Your task to perform on an android device: move an email to a new category in the gmail app Image 0: 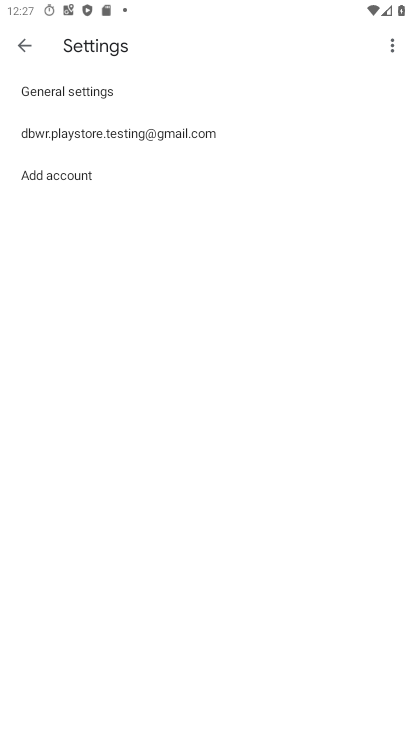
Step 0: press home button
Your task to perform on an android device: move an email to a new category in the gmail app Image 1: 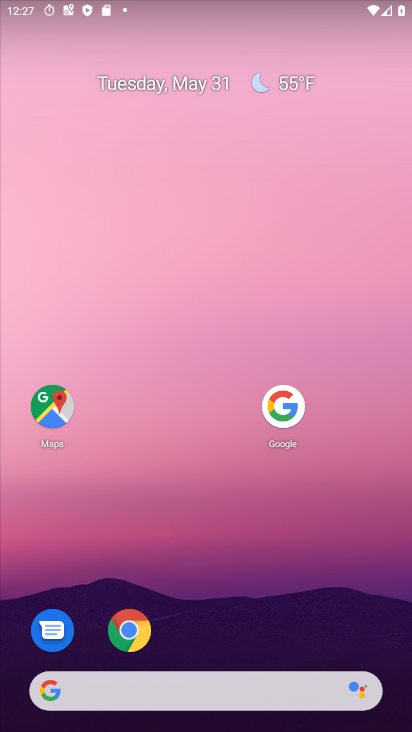
Step 1: drag from (180, 672) to (311, 143)
Your task to perform on an android device: move an email to a new category in the gmail app Image 2: 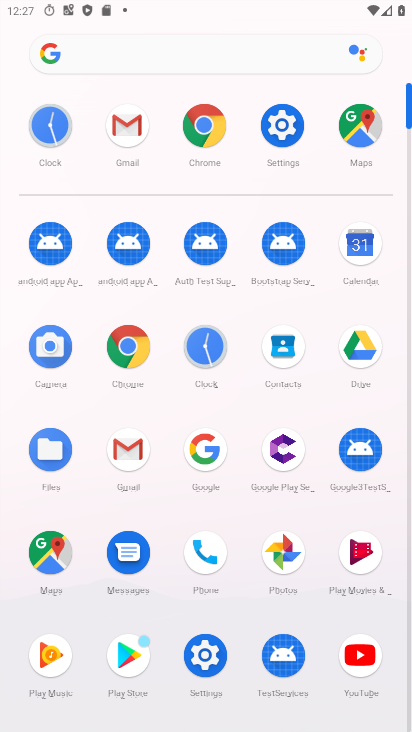
Step 2: click (135, 130)
Your task to perform on an android device: move an email to a new category in the gmail app Image 3: 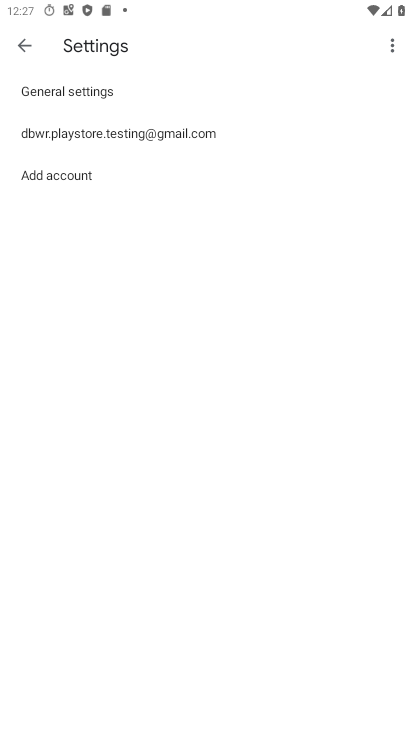
Step 3: click (30, 49)
Your task to perform on an android device: move an email to a new category in the gmail app Image 4: 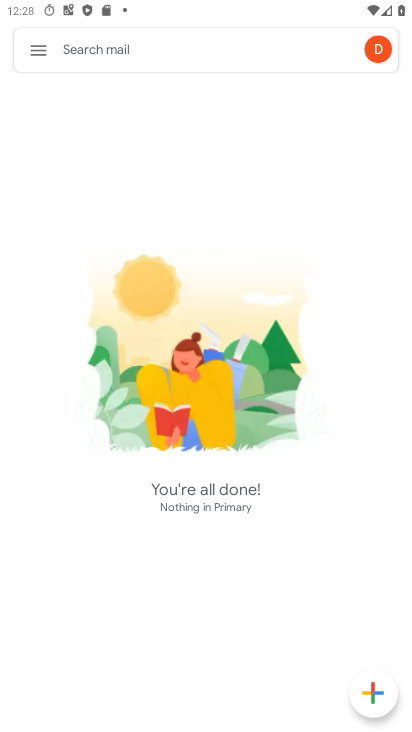
Step 4: task complete